Your task to perform on an android device: turn on the 12-hour format for clock Image 0: 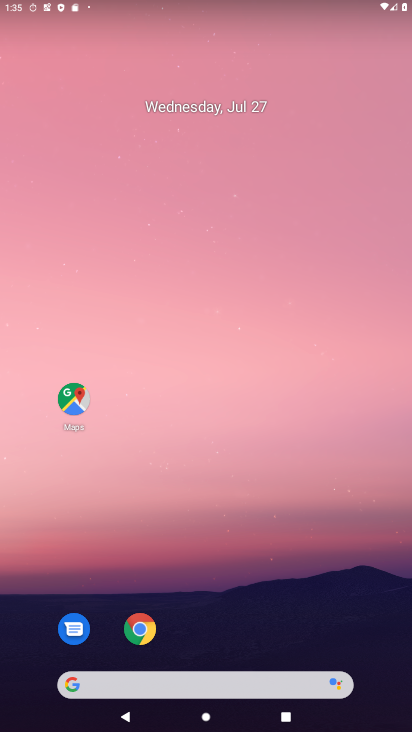
Step 0: press home button
Your task to perform on an android device: turn on the 12-hour format for clock Image 1: 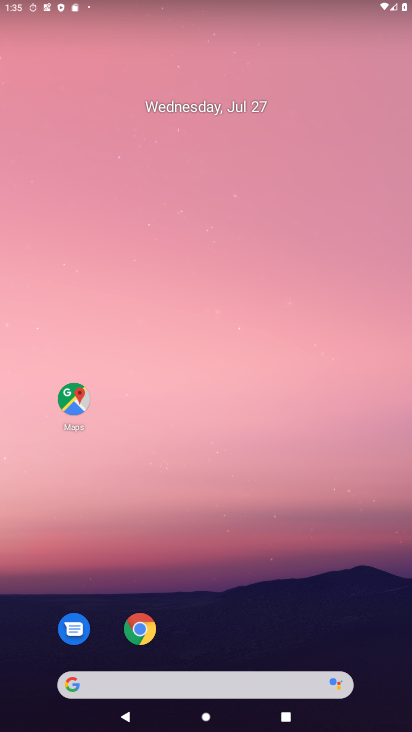
Step 1: drag from (231, 654) to (258, 260)
Your task to perform on an android device: turn on the 12-hour format for clock Image 2: 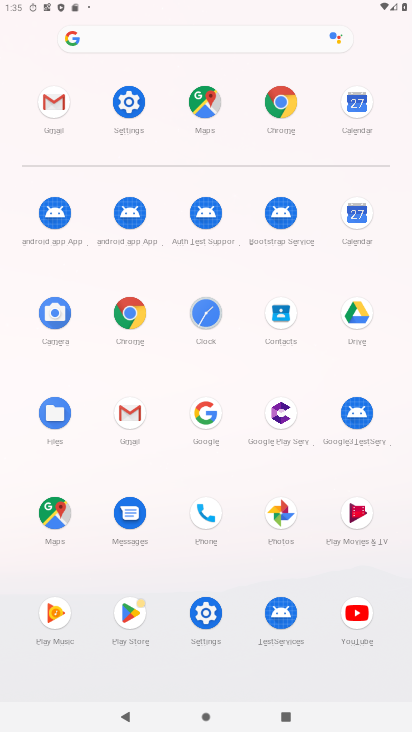
Step 2: click (134, 99)
Your task to perform on an android device: turn on the 12-hour format for clock Image 3: 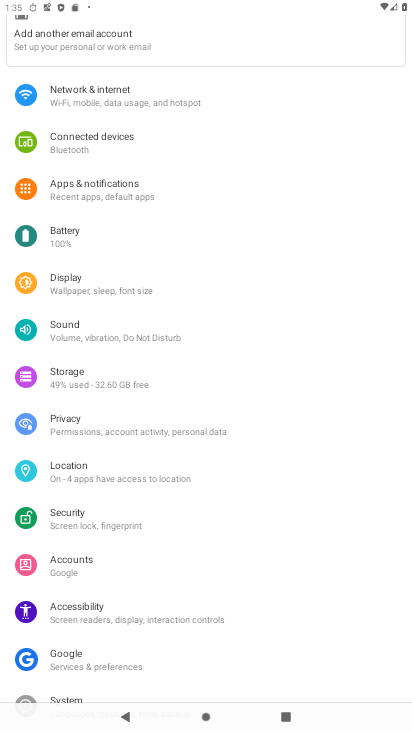
Step 3: drag from (243, 643) to (217, 260)
Your task to perform on an android device: turn on the 12-hour format for clock Image 4: 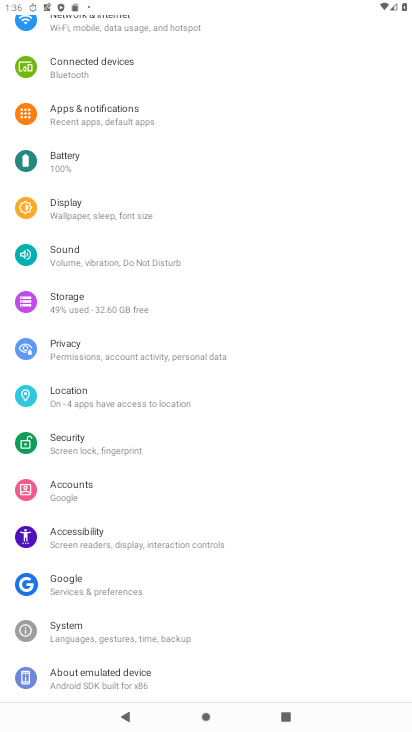
Step 4: click (61, 640)
Your task to perform on an android device: turn on the 12-hour format for clock Image 5: 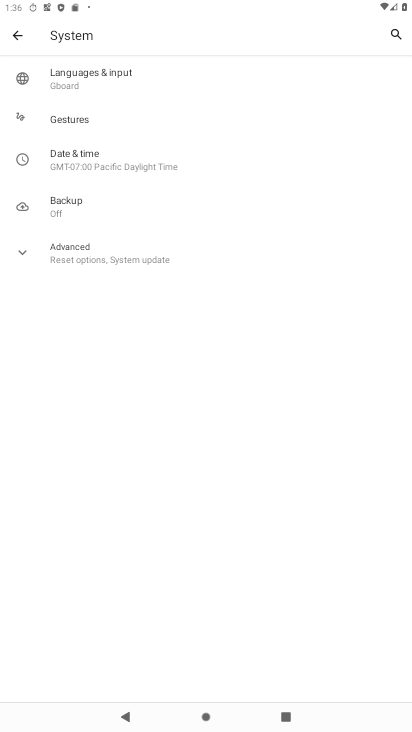
Step 5: click (84, 162)
Your task to perform on an android device: turn on the 12-hour format for clock Image 6: 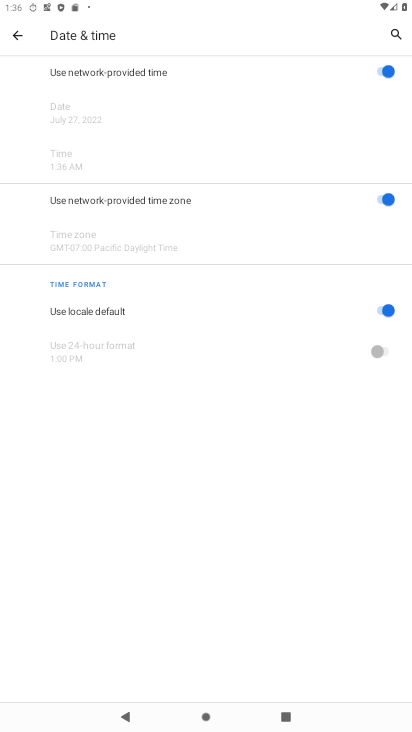
Step 6: click (396, 311)
Your task to perform on an android device: turn on the 12-hour format for clock Image 7: 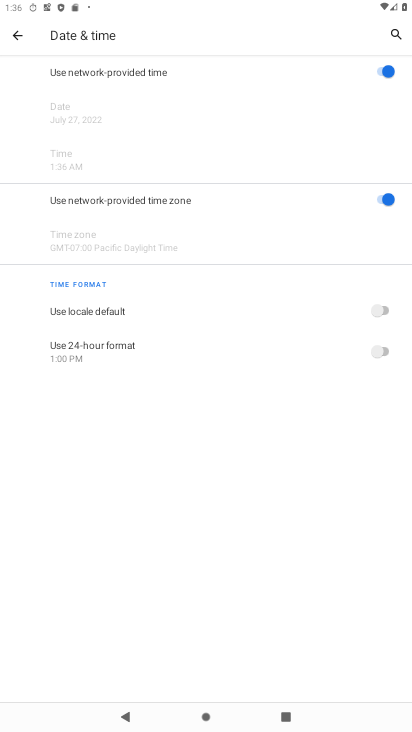
Step 7: task complete